Your task to perform on an android device: install app "Google Photos" Image 0: 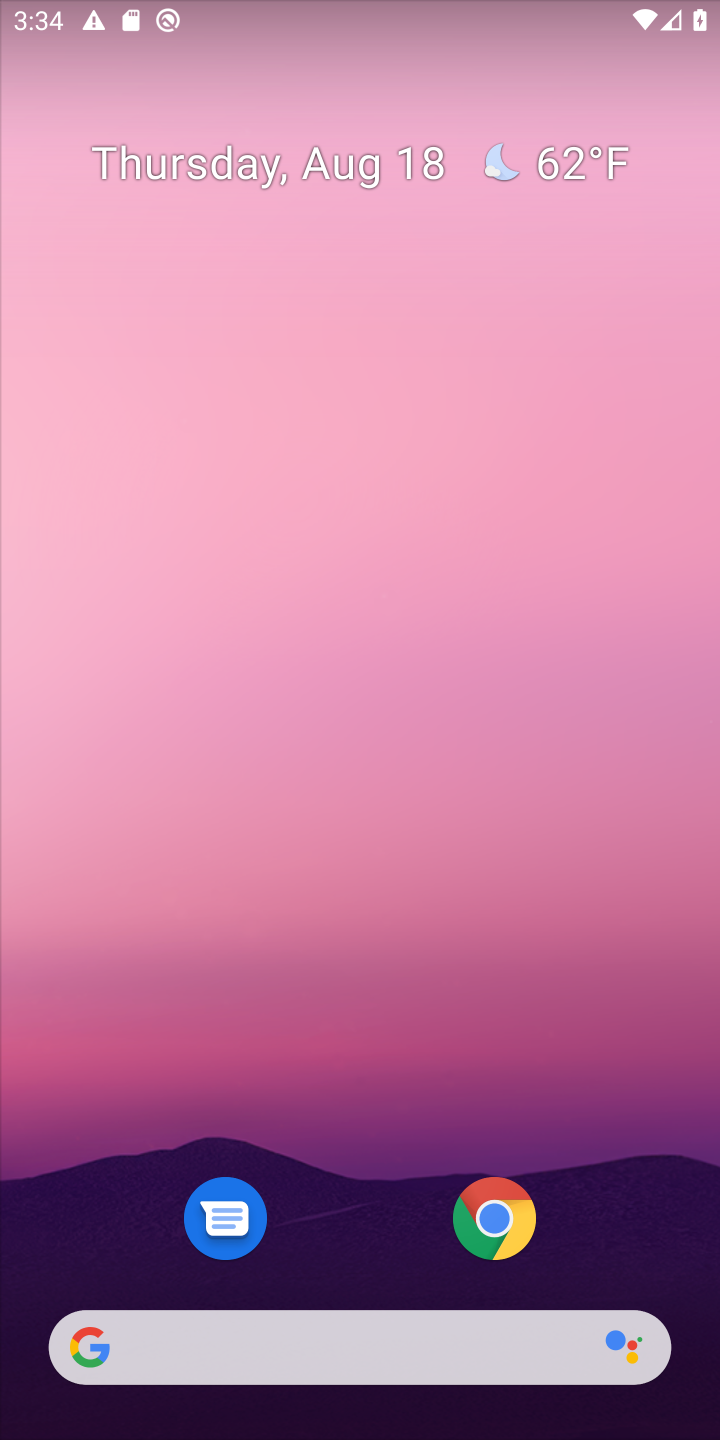
Step 0: drag from (341, 773) to (341, 367)
Your task to perform on an android device: install app "Google Photos" Image 1: 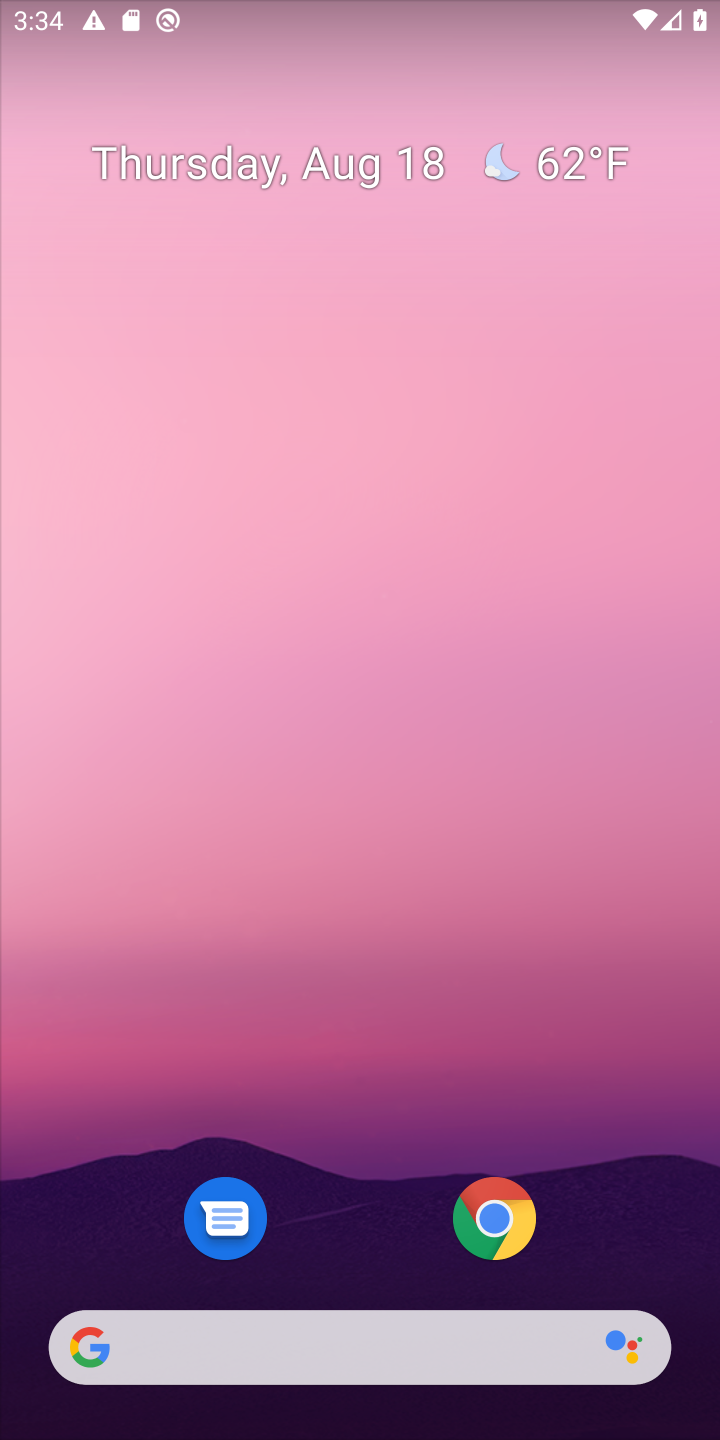
Step 1: drag from (336, 1051) to (355, 357)
Your task to perform on an android device: install app "Google Photos" Image 2: 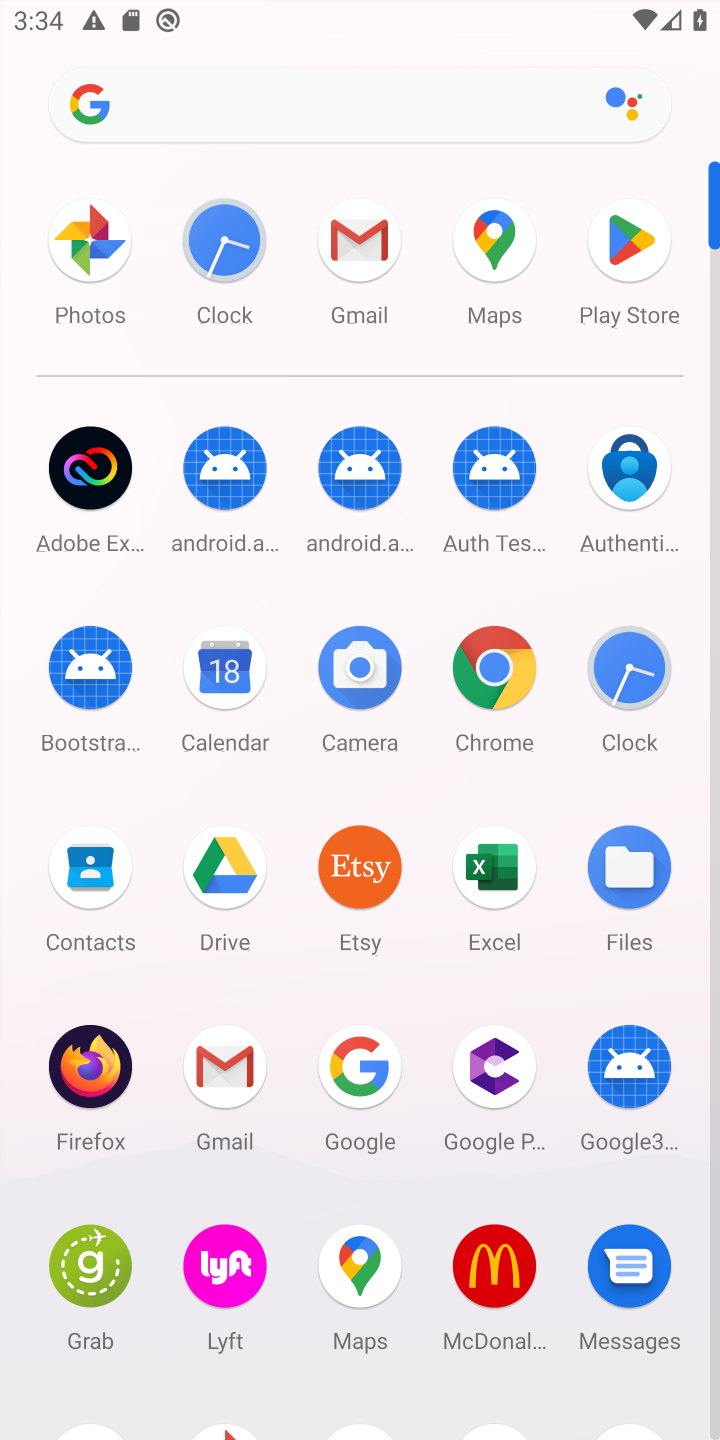
Step 2: click (597, 241)
Your task to perform on an android device: install app "Google Photos" Image 3: 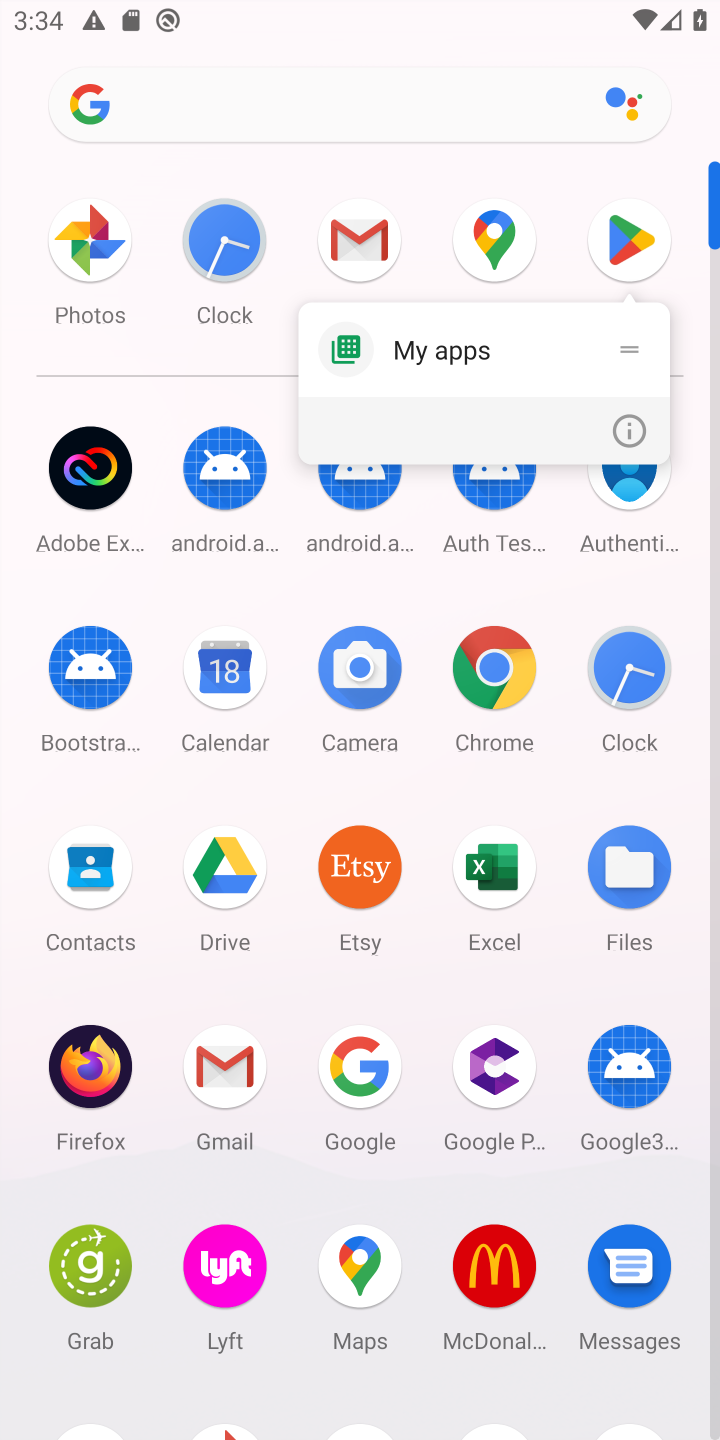
Step 3: click (597, 241)
Your task to perform on an android device: install app "Google Photos" Image 4: 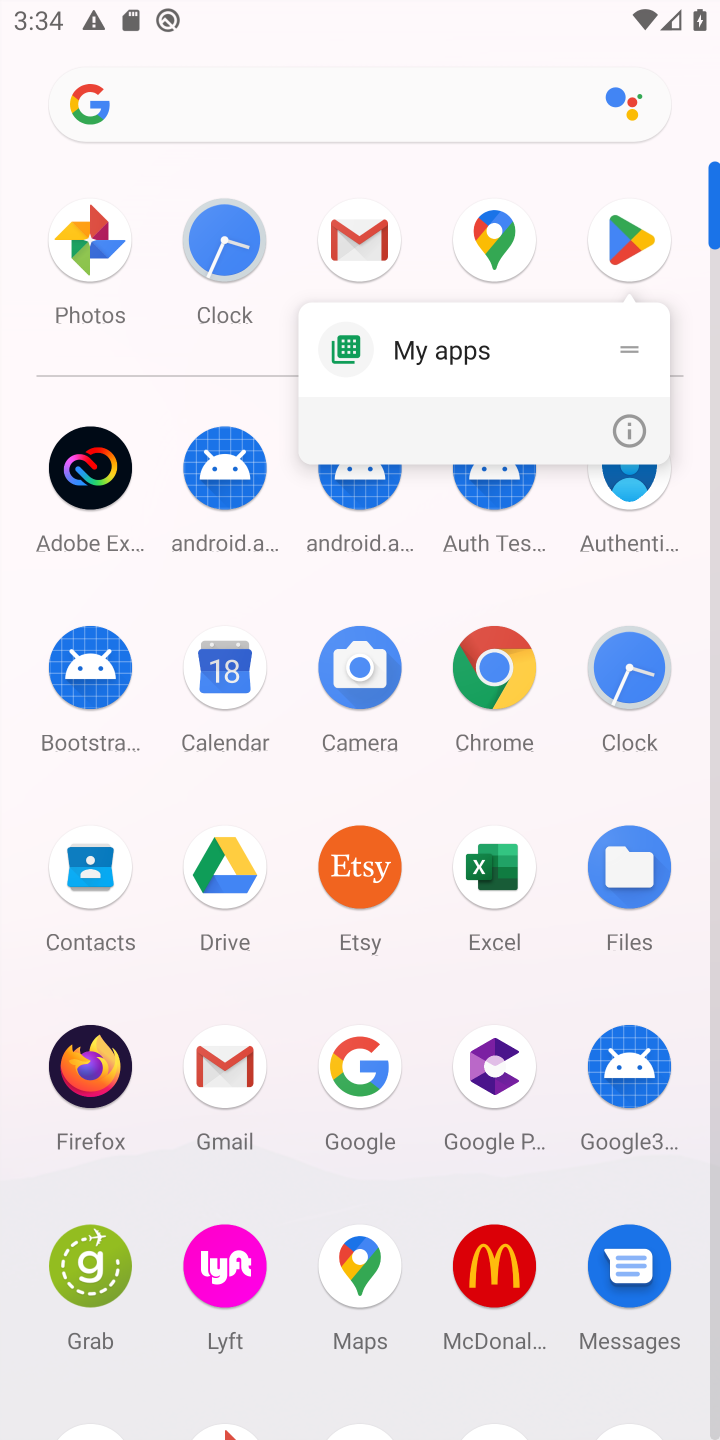
Step 4: click (616, 211)
Your task to perform on an android device: install app "Google Photos" Image 5: 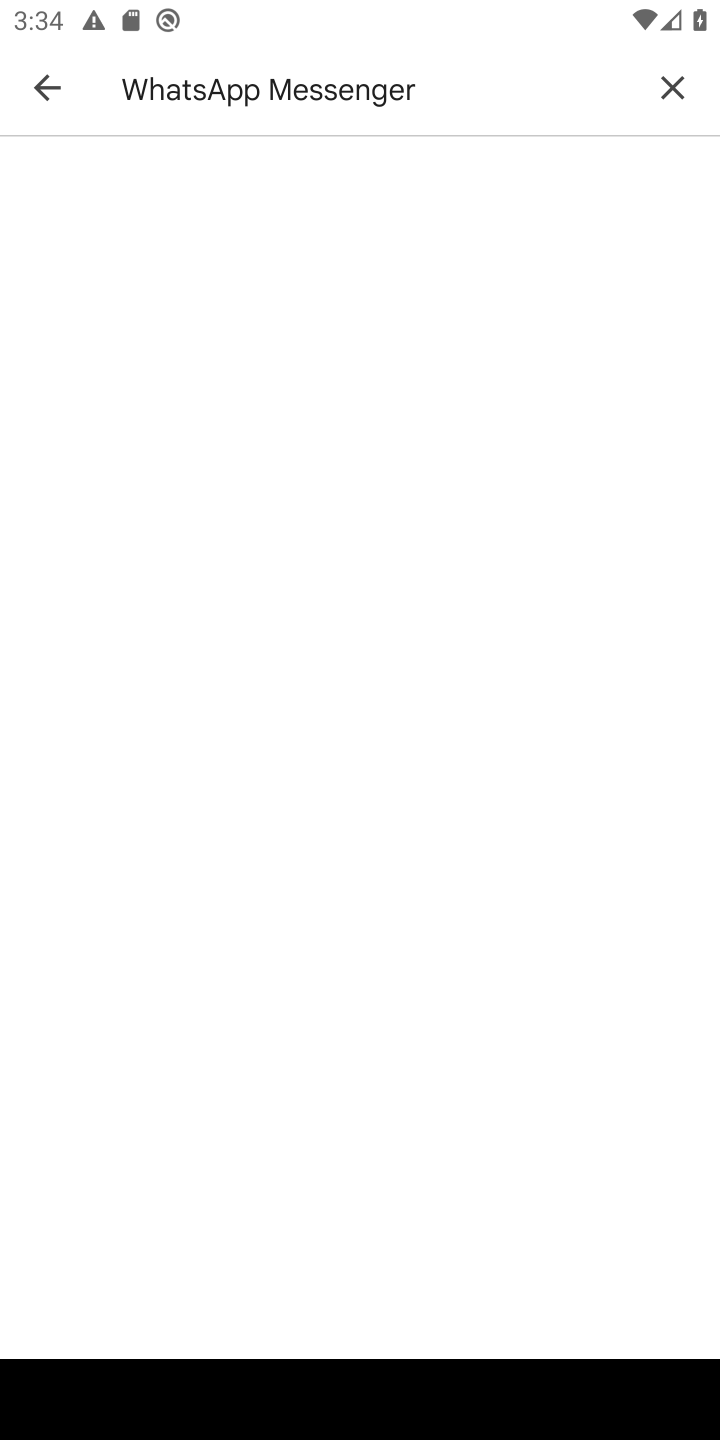
Step 5: click (668, 81)
Your task to perform on an android device: install app "Google Photos" Image 6: 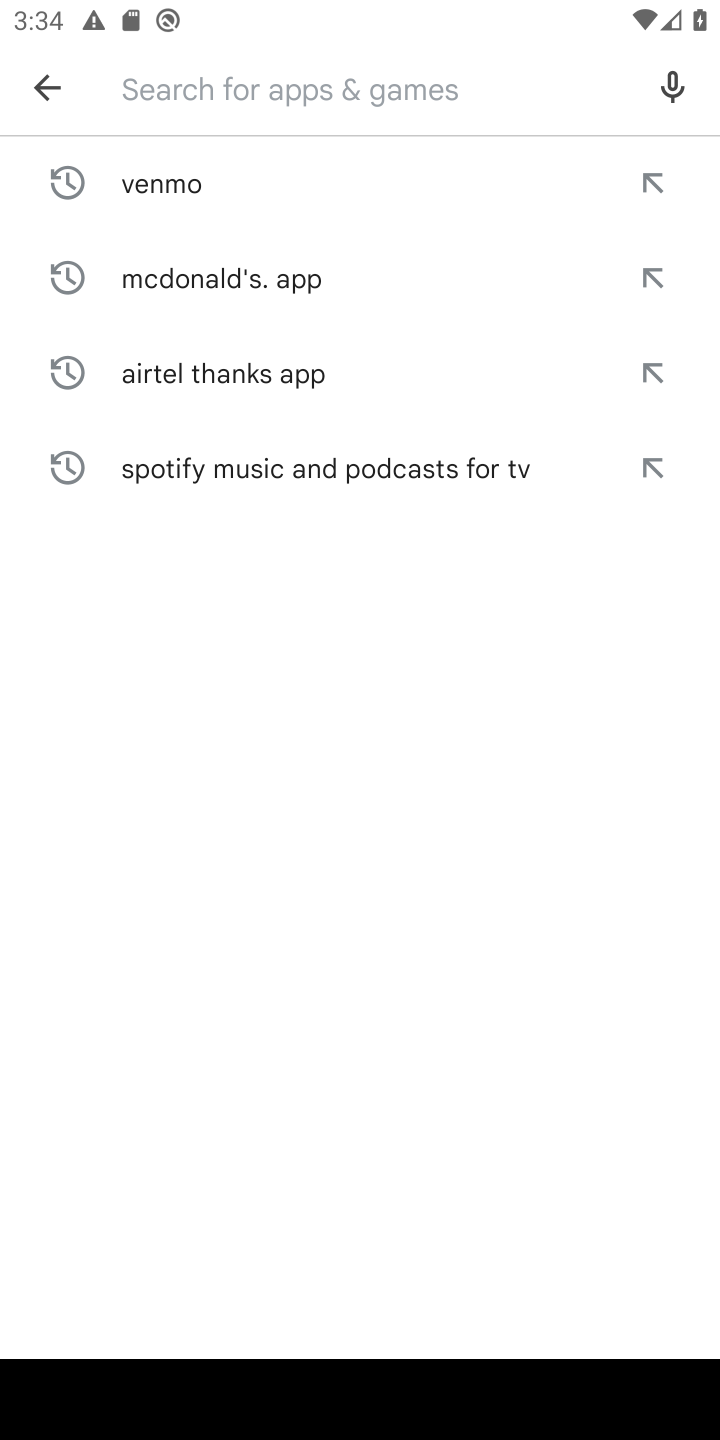
Step 6: type "Google Photos"
Your task to perform on an android device: install app "Google Photos" Image 7: 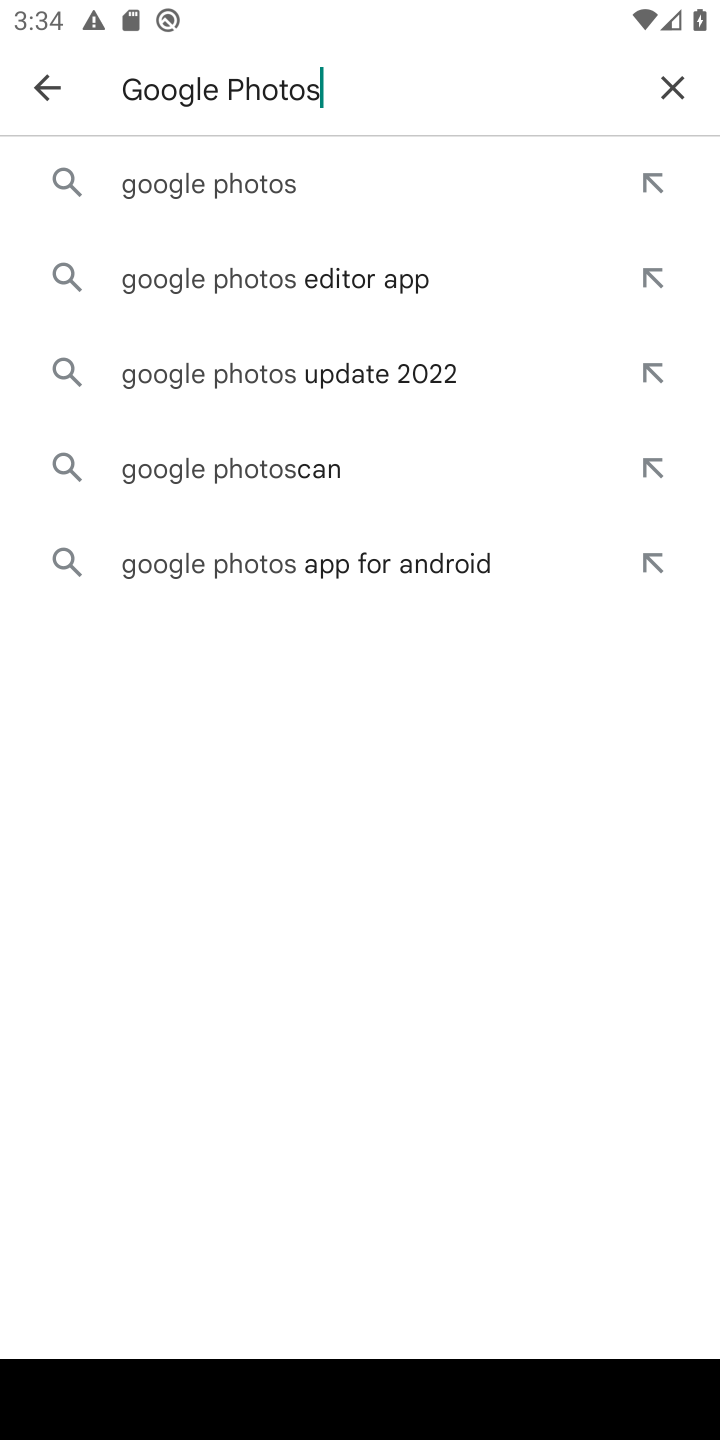
Step 7: type ""
Your task to perform on an android device: install app "Google Photos" Image 8: 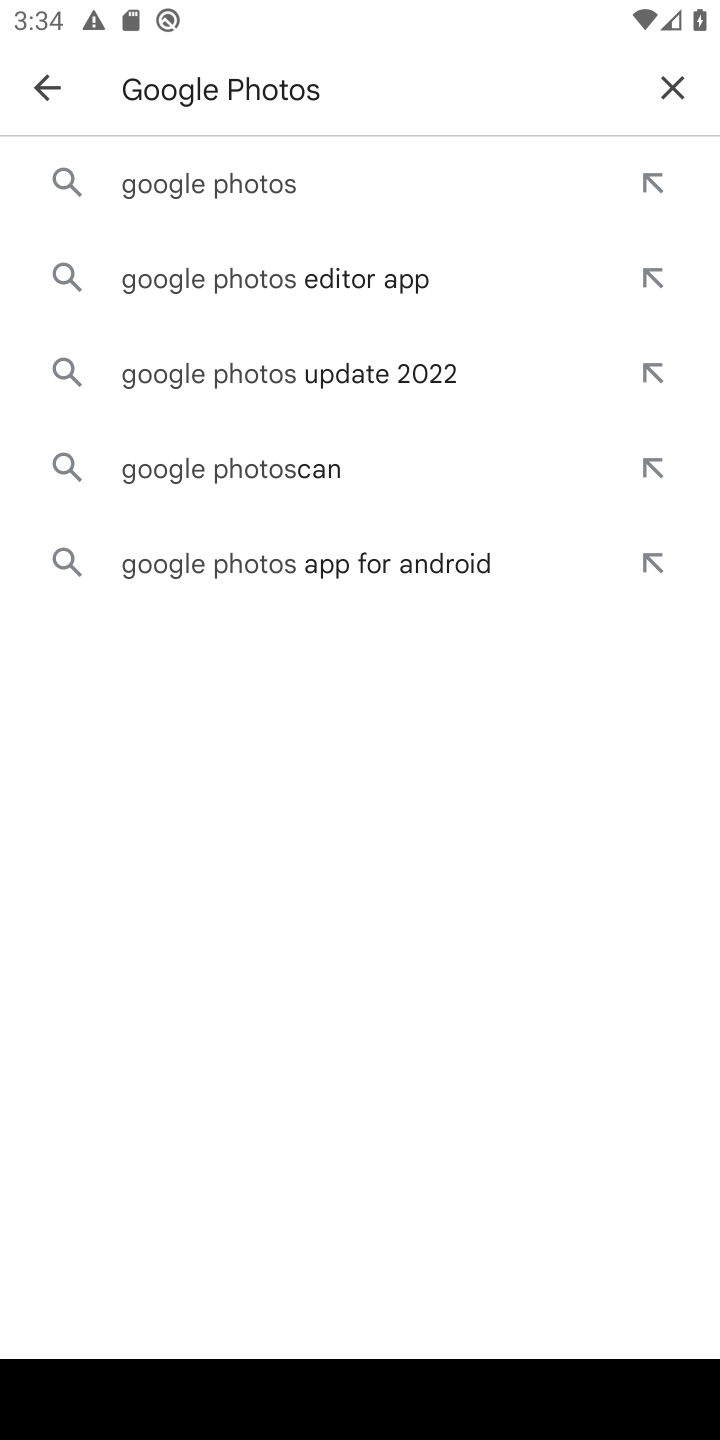
Step 8: click (317, 179)
Your task to perform on an android device: install app "Google Photos" Image 9: 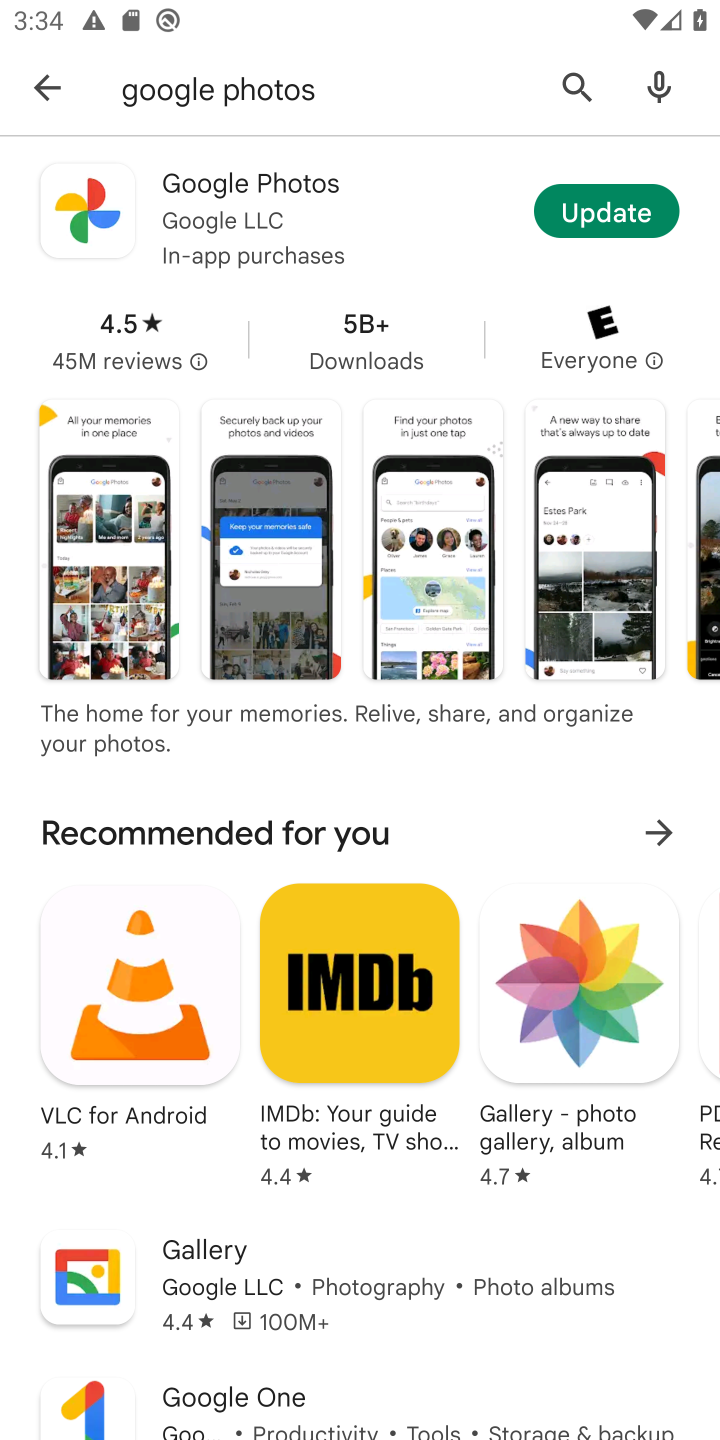
Step 9: click (337, 214)
Your task to perform on an android device: install app "Google Photos" Image 10: 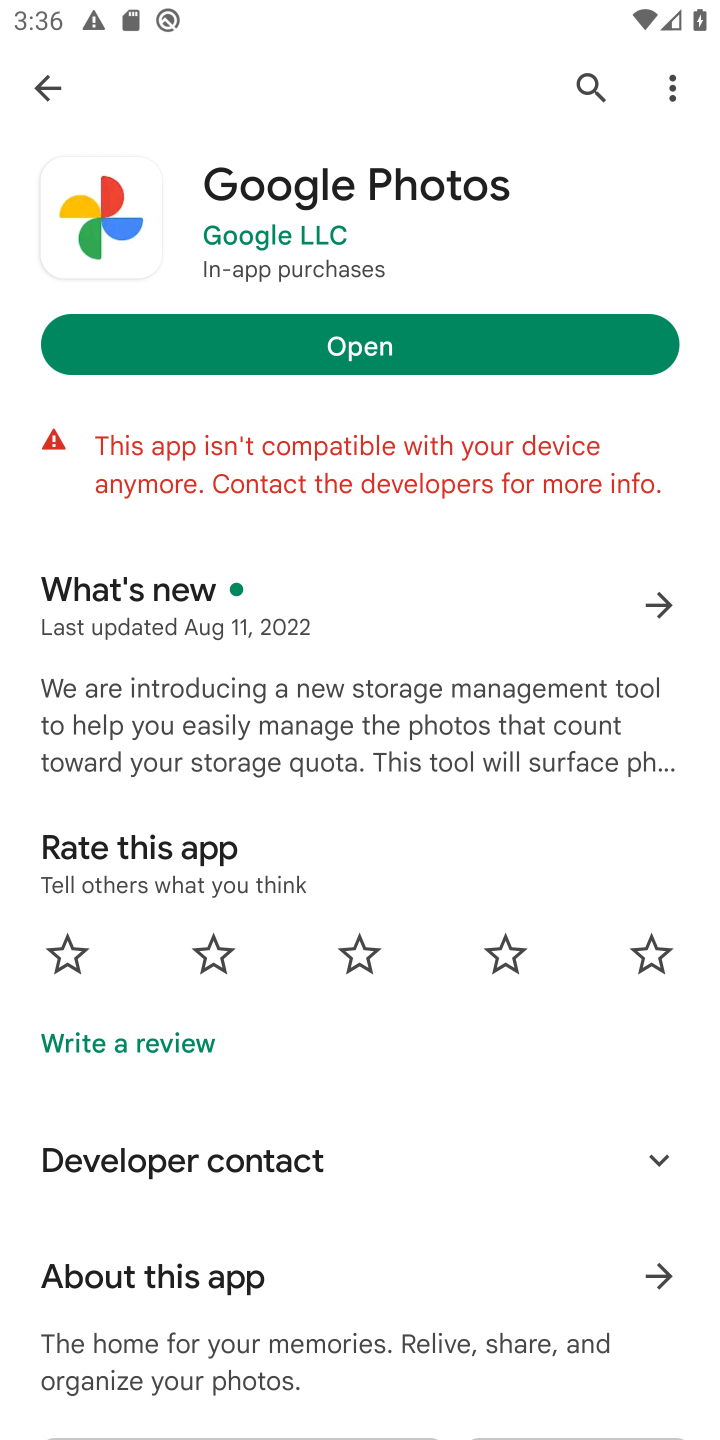
Step 10: task complete